Your task to perform on an android device: open chrome and create a bookmark for the current page Image 0: 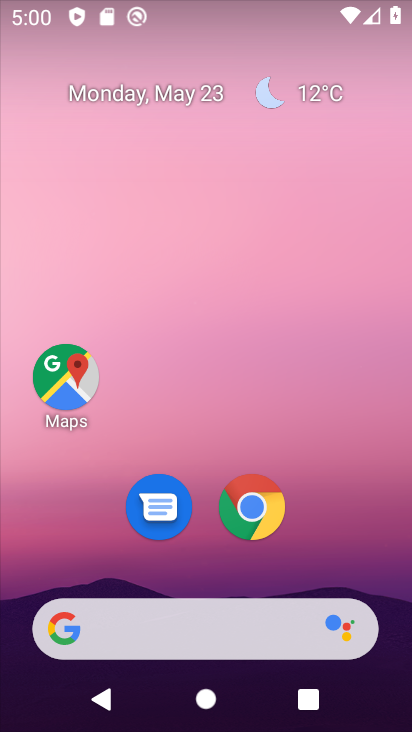
Step 0: click (252, 510)
Your task to perform on an android device: open chrome and create a bookmark for the current page Image 1: 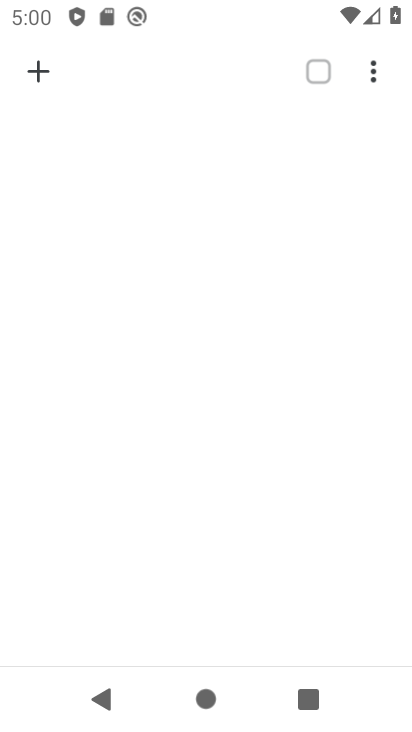
Step 1: click (377, 68)
Your task to perform on an android device: open chrome and create a bookmark for the current page Image 2: 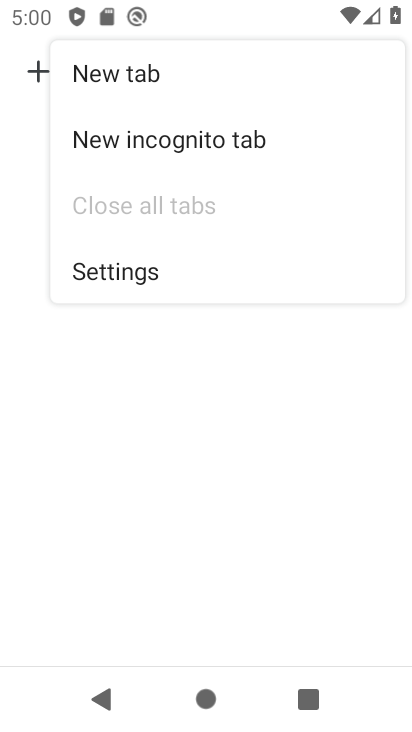
Step 2: click (33, 76)
Your task to perform on an android device: open chrome and create a bookmark for the current page Image 3: 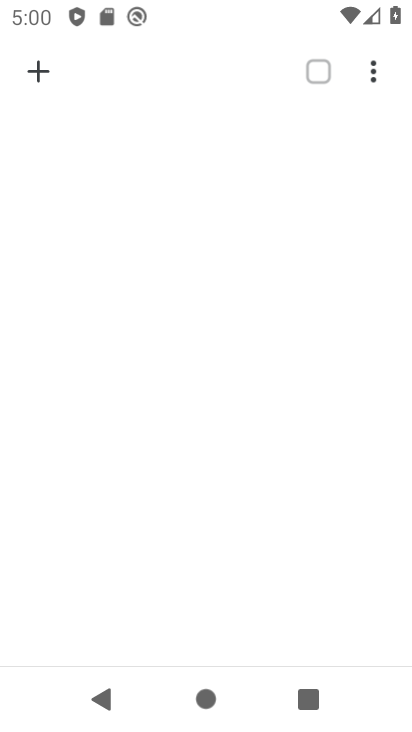
Step 3: click (33, 76)
Your task to perform on an android device: open chrome and create a bookmark for the current page Image 4: 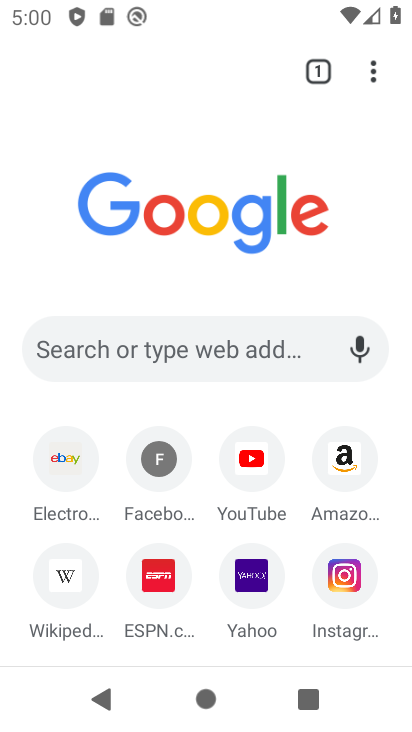
Step 4: click (374, 76)
Your task to perform on an android device: open chrome and create a bookmark for the current page Image 5: 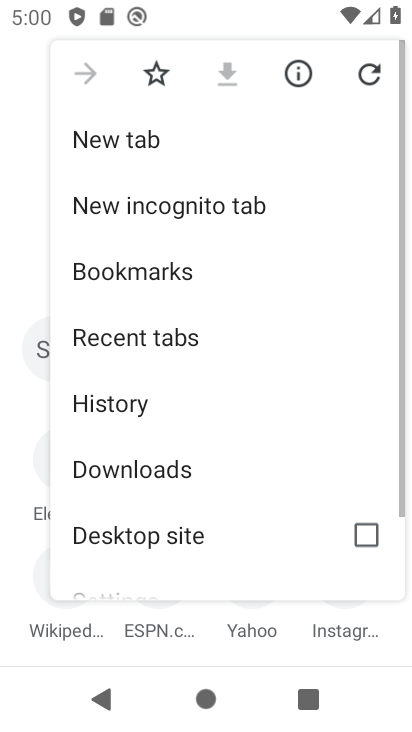
Step 5: click (200, 269)
Your task to perform on an android device: open chrome and create a bookmark for the current page Image 6: 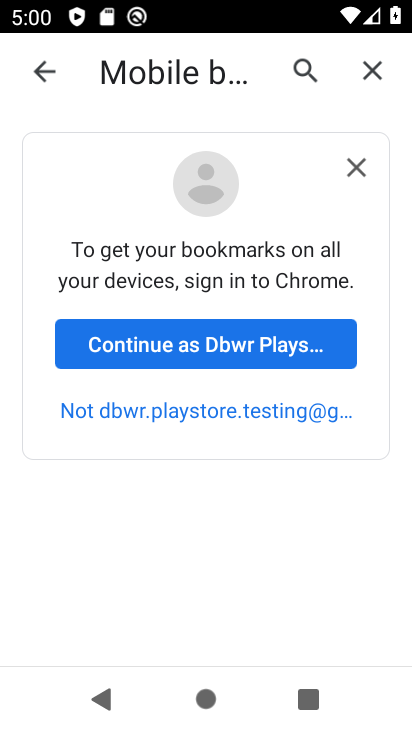
Step 6: click (363, 168)
Your task to perform on an android device: open chrome and create a bookmark for the current page Image 7: 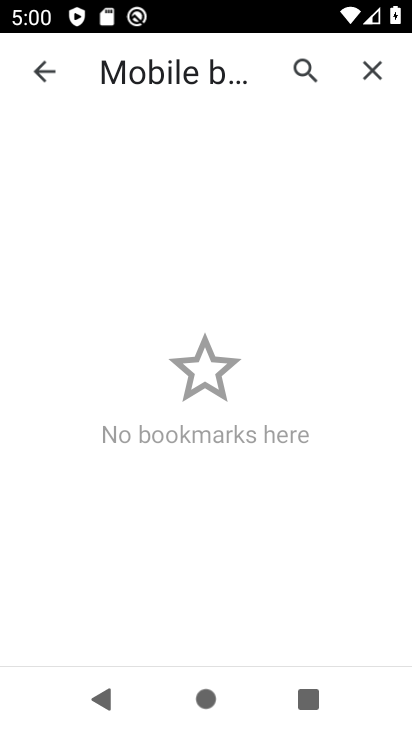
Step 7: task complete